Your task to perform on an android device: turn on translation in the chrome app Image 0: 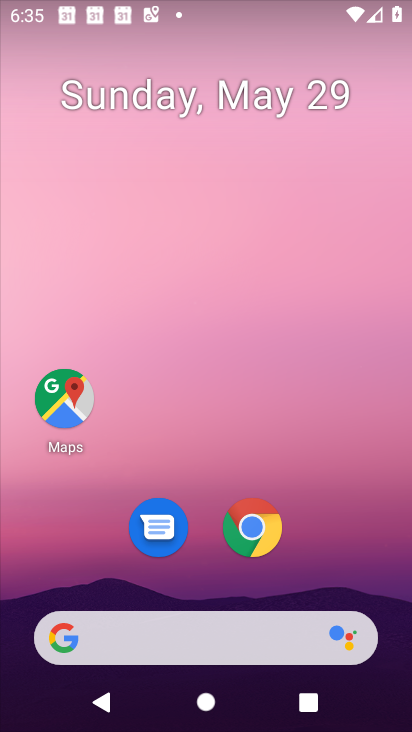
Step 0: drag from (375, 603) to (218, 98)
Your task to perform on an android device: turn on translation in the chrome app Image 1: 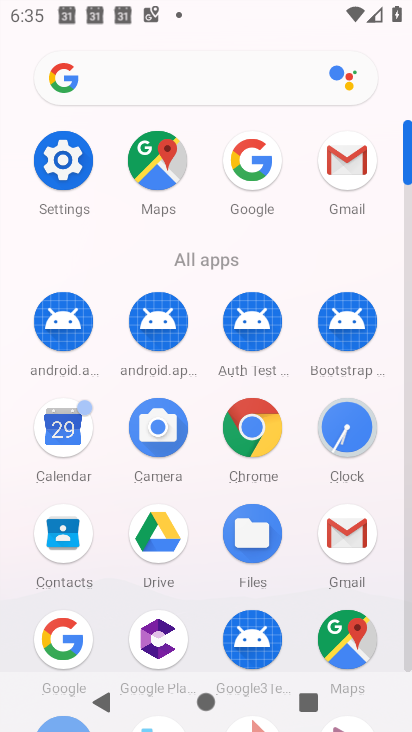
Step 1: click (254, 455)
Your task to perform on an android device: turn on translation in the chrome app Image 2: 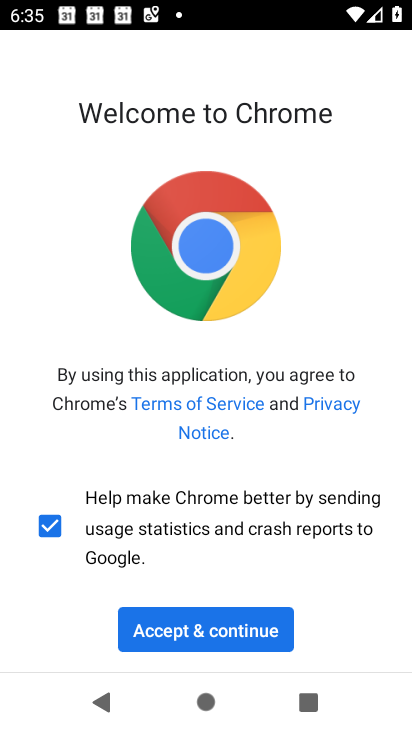
Step 2: click (192, 627)
Your task to perform on an android device: turn on translation in the chrome app Image 3: 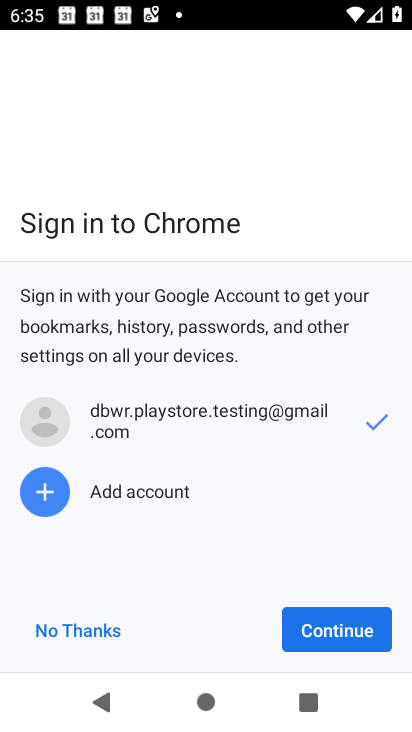
Step 3: click (326, 621)
Your task to perform on an android device: turn on translation in the chrome app Image 4: 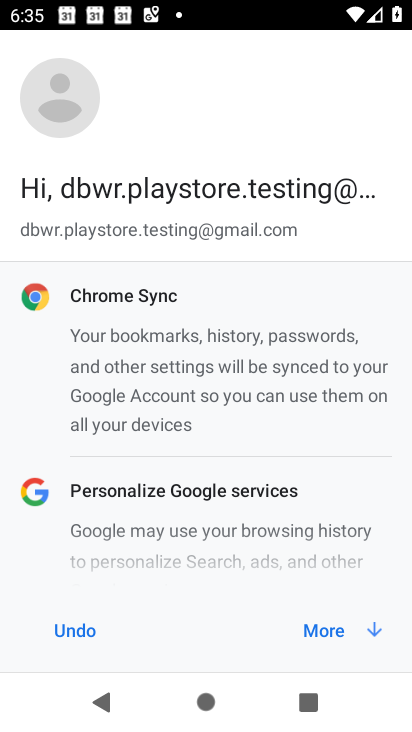
Step 4: click (326, 621)
Your task to perform on an android device: turn on translation in the chrome app Image 5: 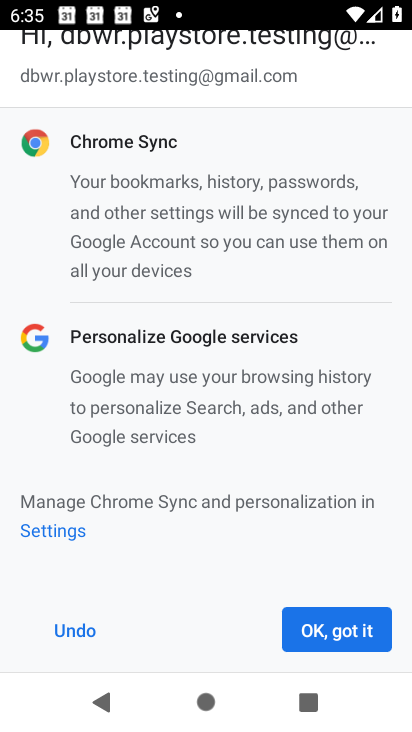
Step 5: click (326, 621)
Your task to perform on an android device: turn on translation in the chrome app Image 6: 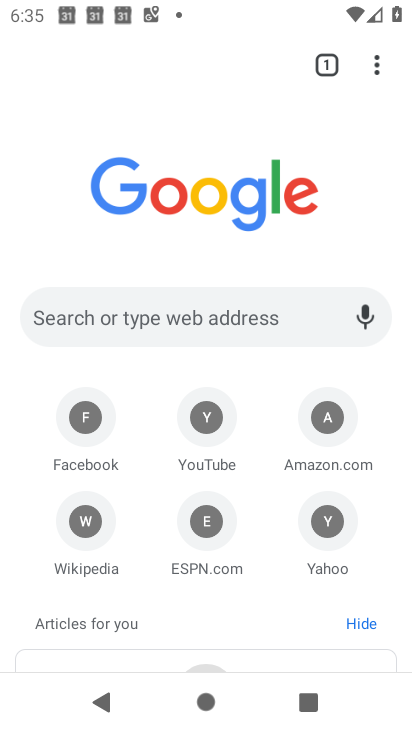
Step 6: click (376, 60)
Your task to perform on an android device: turn on translation in the chrome app Image 7: 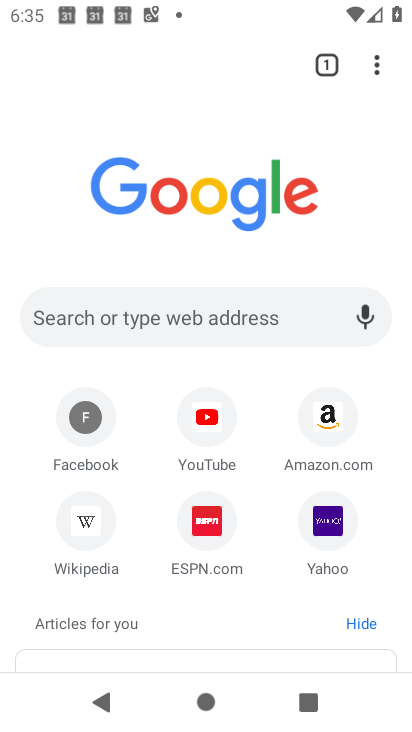
Step 7: click (380, 61)
Your task to perform on an android device: turn on translation in the chrome app Image 8: 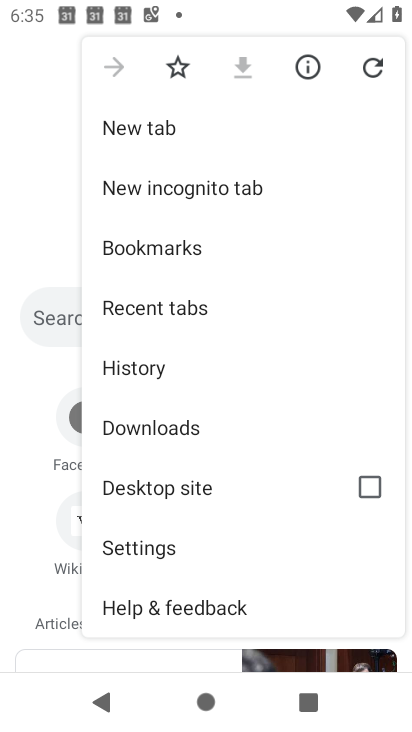
Step 8: click (107, 560)
Your task to perform on an android device: turn on translation in the chrome app Image 9: 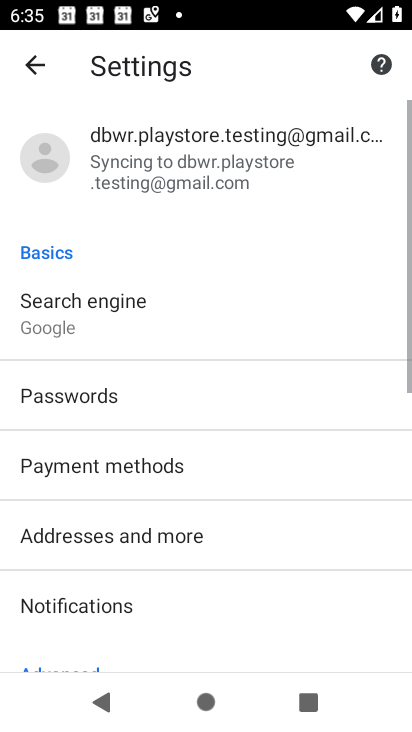
Step 9: drag from (108, 561) to (185, 11)
Your task to perform on an android device: turn on translation in the chrome app Image 10: 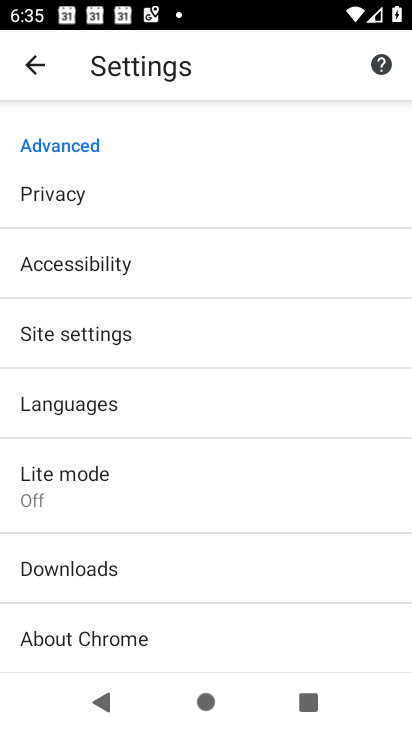
Step 10: click (139, 401)
Your task to perform on an android device: turn on translation in the chrome app Image 11: 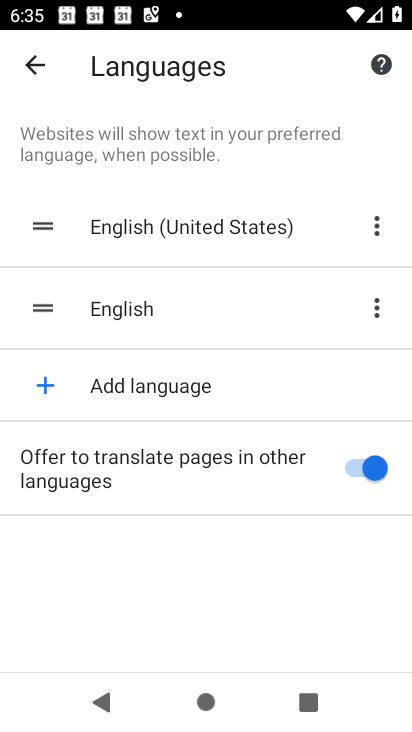
Step 11: task complete